Your task to perform on an android device: What's the weather going to be tomorrow? Image 0: 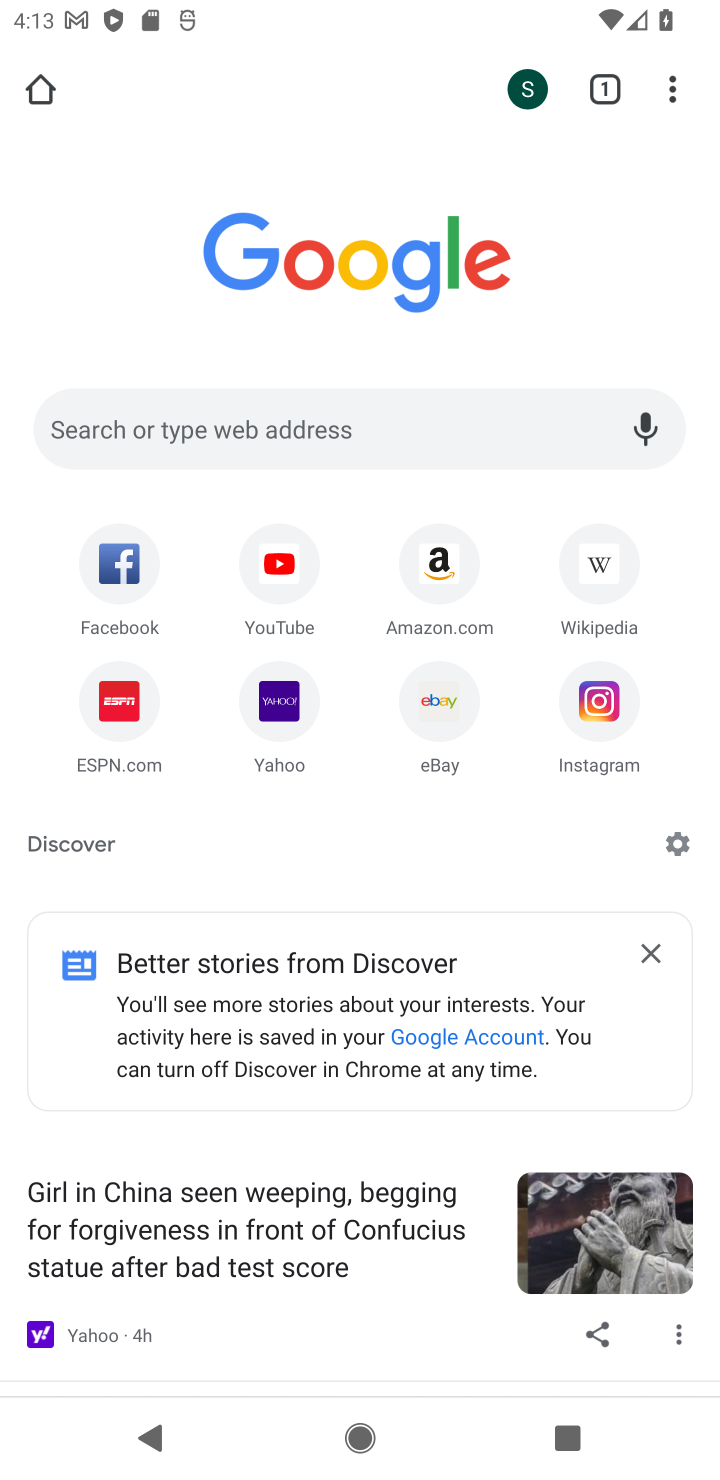
Step 0: press home button
Your task to perform on an android device: What's the weather going to be tomorrow? Image 1: 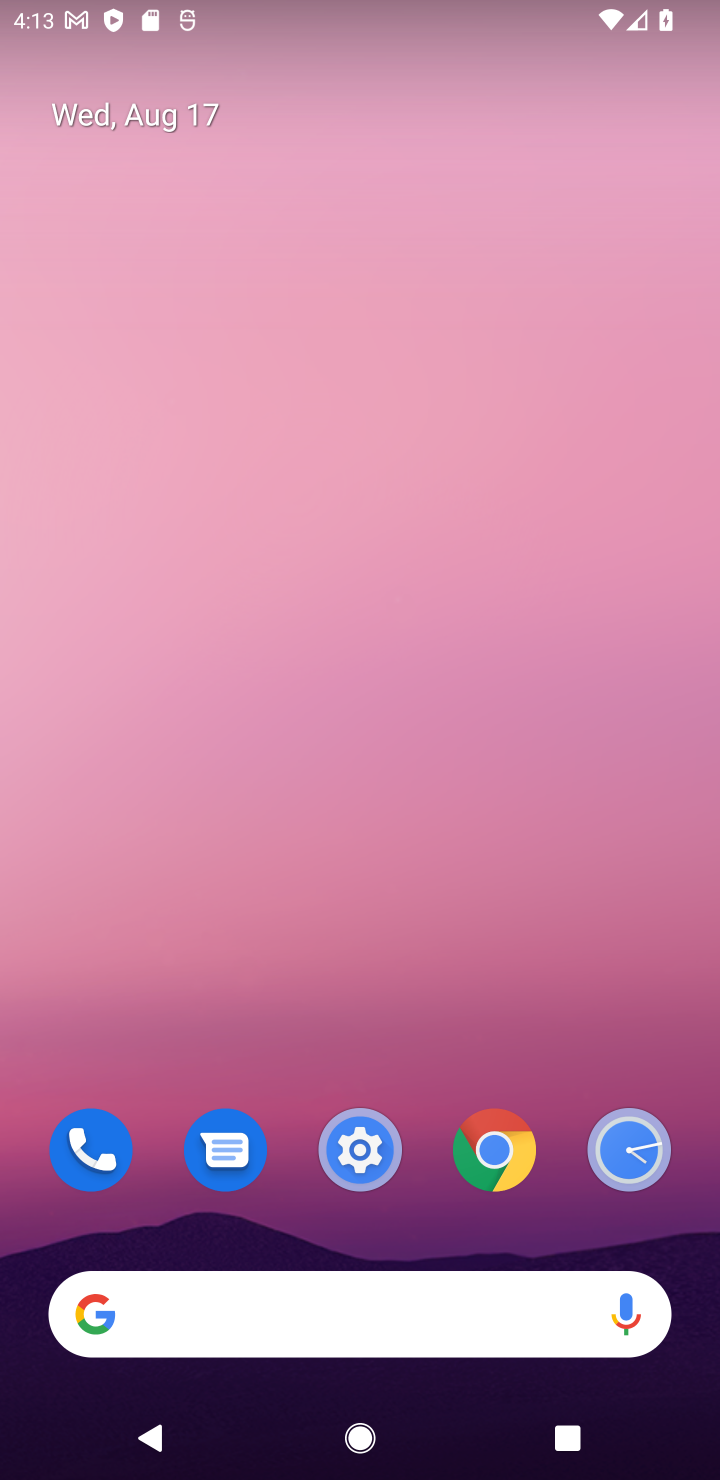
Step 1: drag from (686, 1250) to (218, 1)
Your task to perform on an android device: What's the weather going to be tomorrow? Image 2: 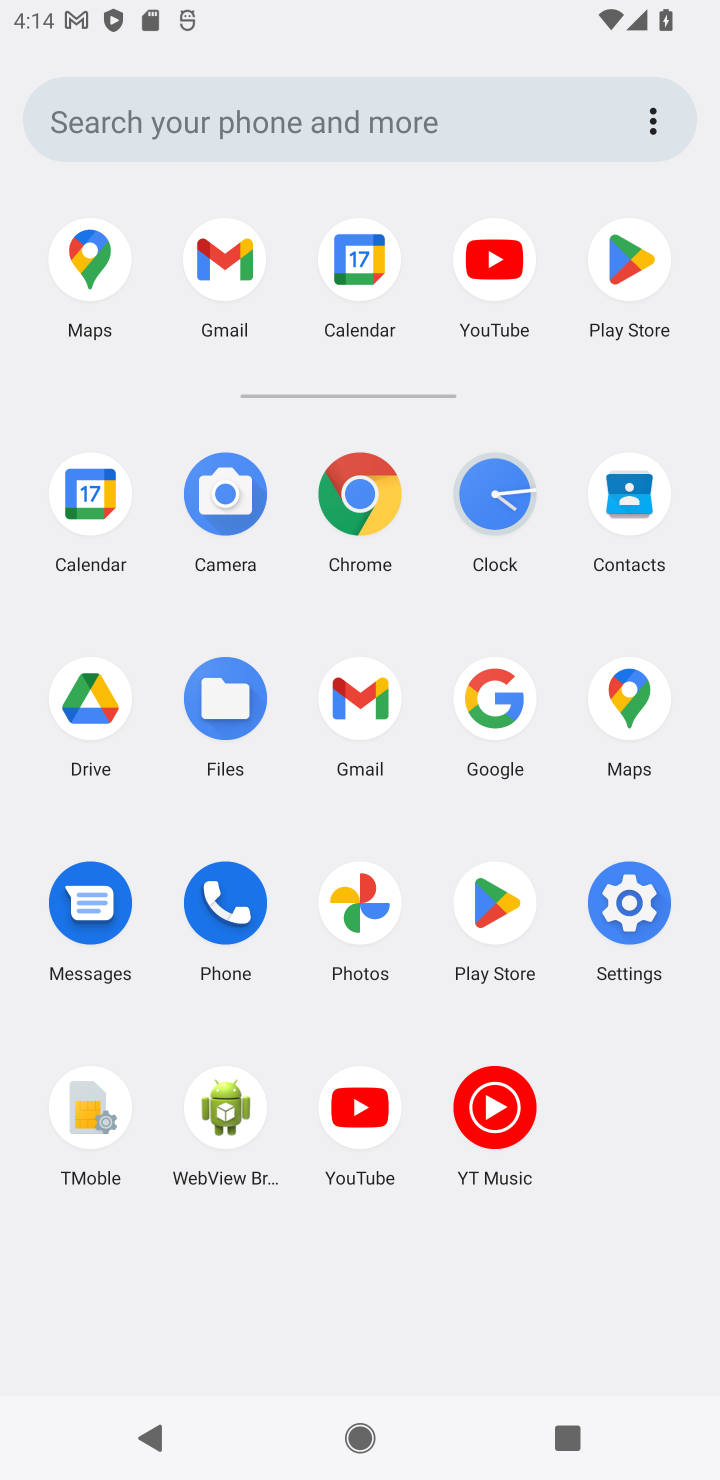
Step 2: click (482, 713)
Your task to perform on an android device: What's the weather going to be tomorrow? Image 3: 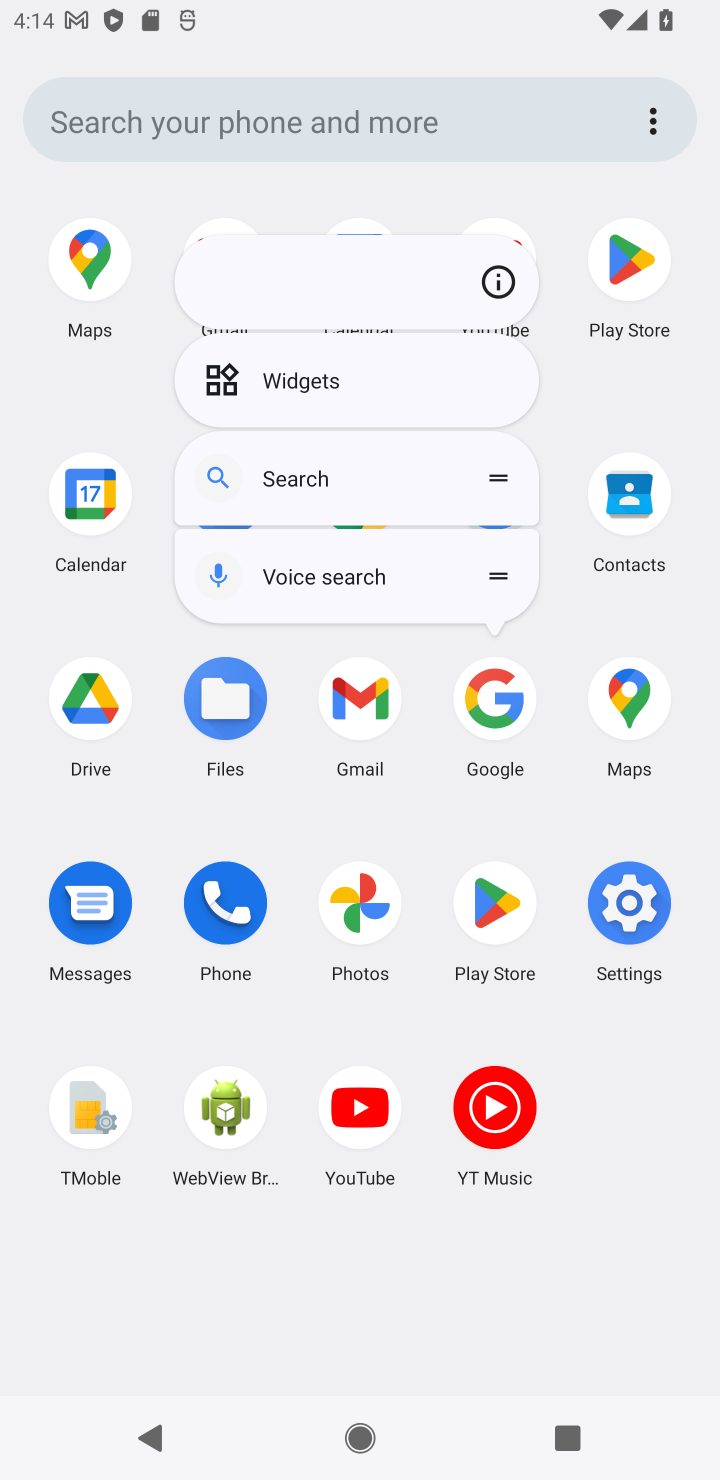
Step 3: click (482, 713)
Your task to perform on an android device: What's the weather going to be tomorrow? Image 4: 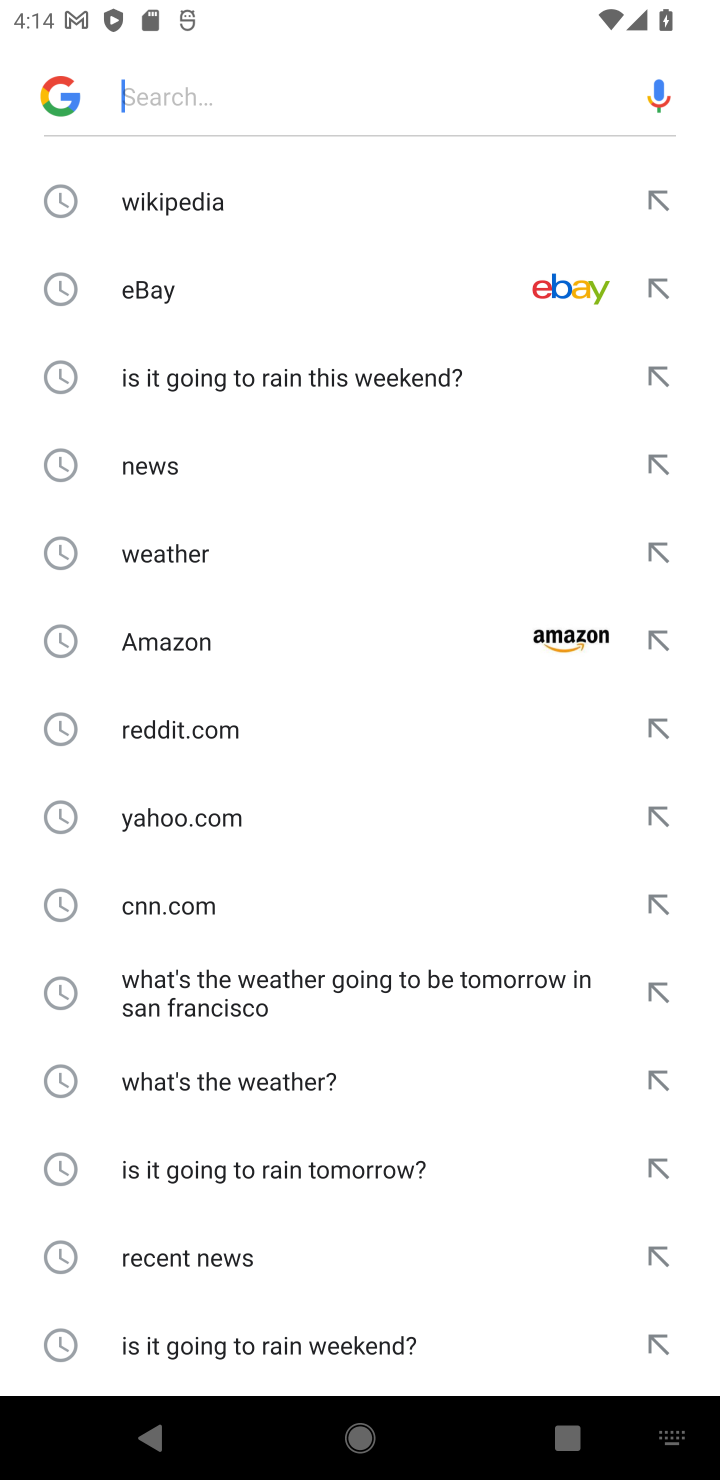
Step 4: drag from (367, 1249) to (352, 777)
Your task to perform on an android device: What's the weather going to be tomorrow? Image 5: 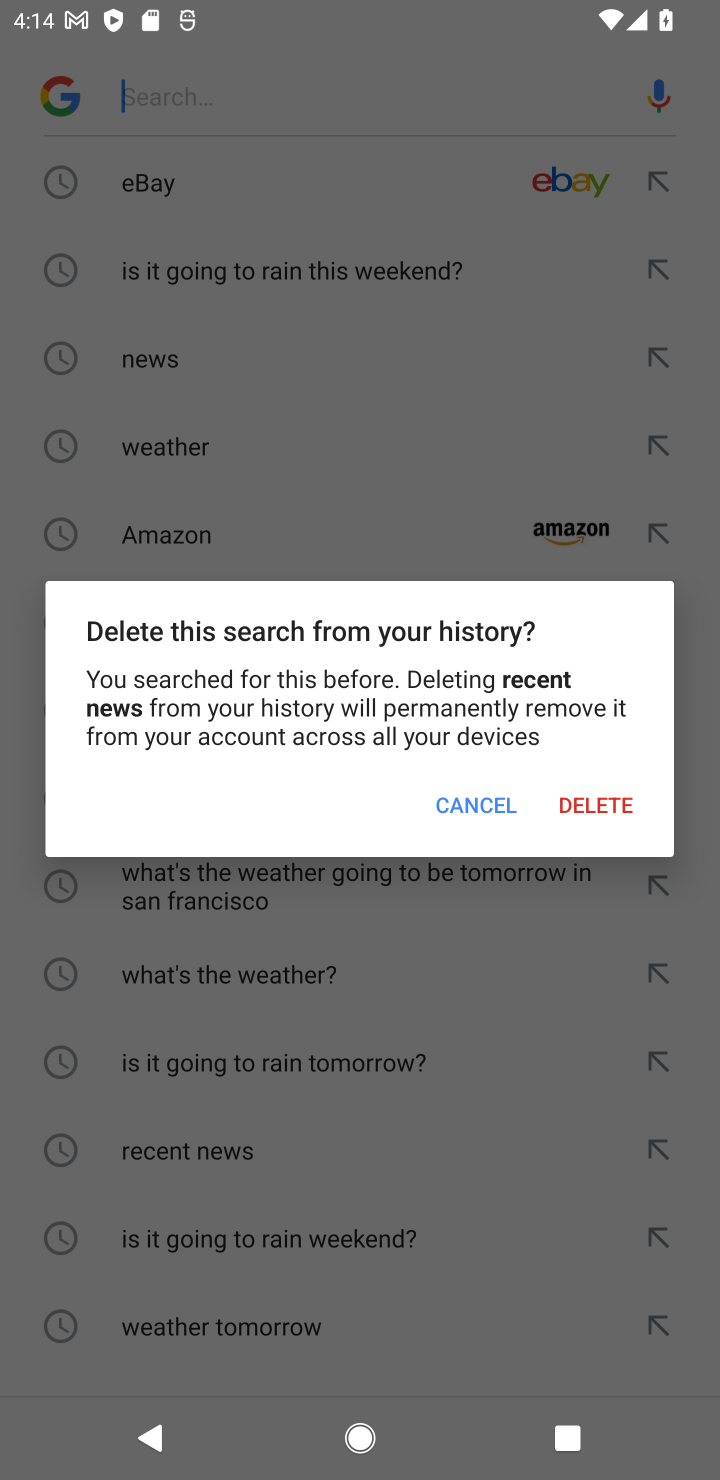
Step 5: click (483, 797)
Your task to perform on an android device: What's the weather going to be tomorrow? Image 6: 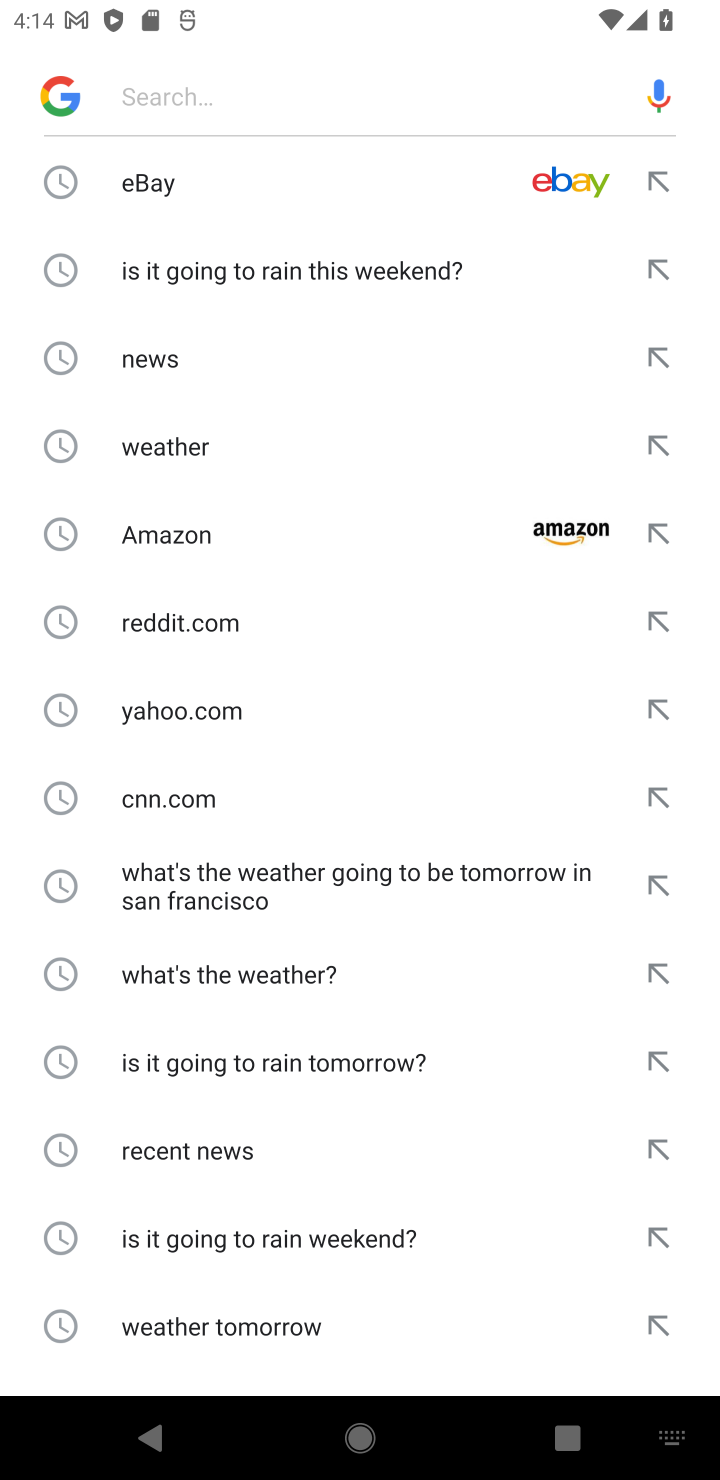
Step 6: drag from (90, 1256) to (139, 297)
Your task to perform on an android device: What's the weather going to be tomorrow? Image 7: 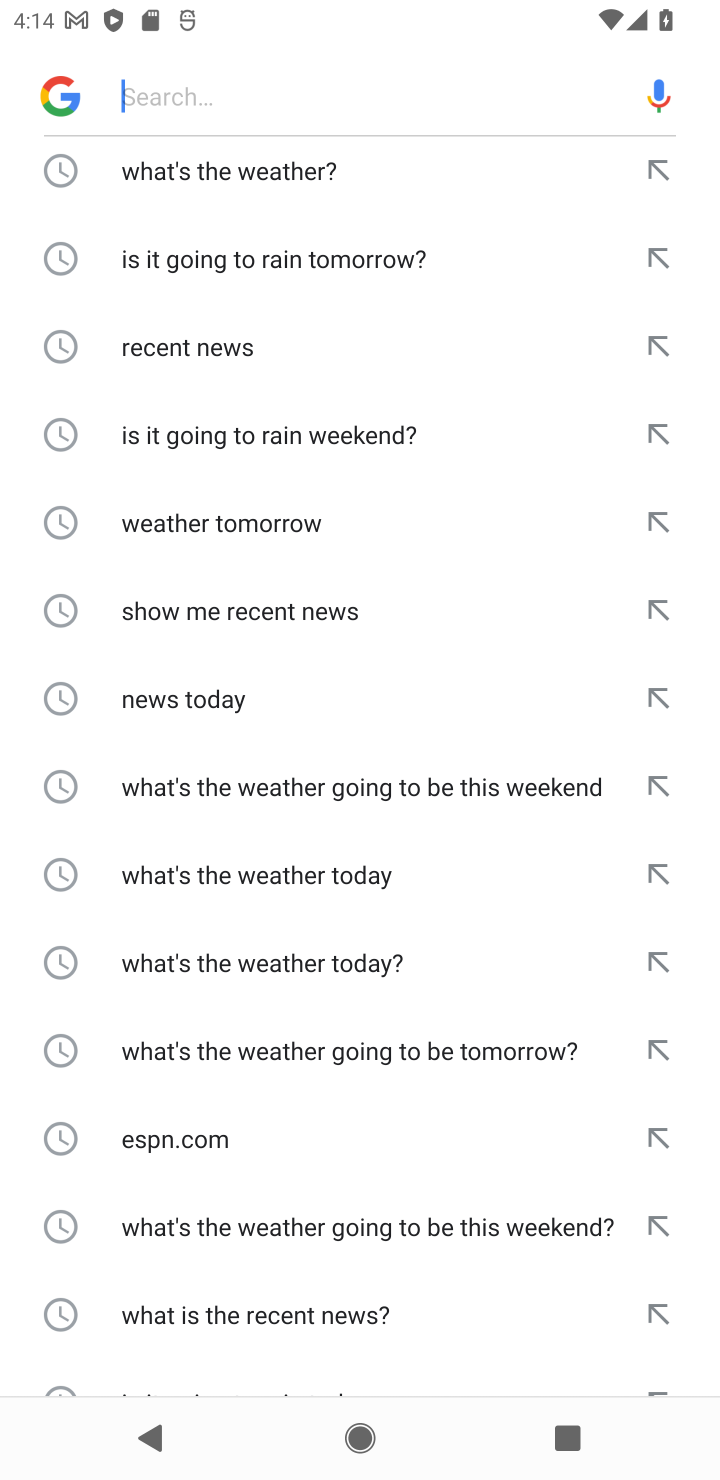
Step 7: drag from (277, 1216) to (336, 866)
Your task to perform on an android device: What's the weather going to be tomorrow? Image 8: 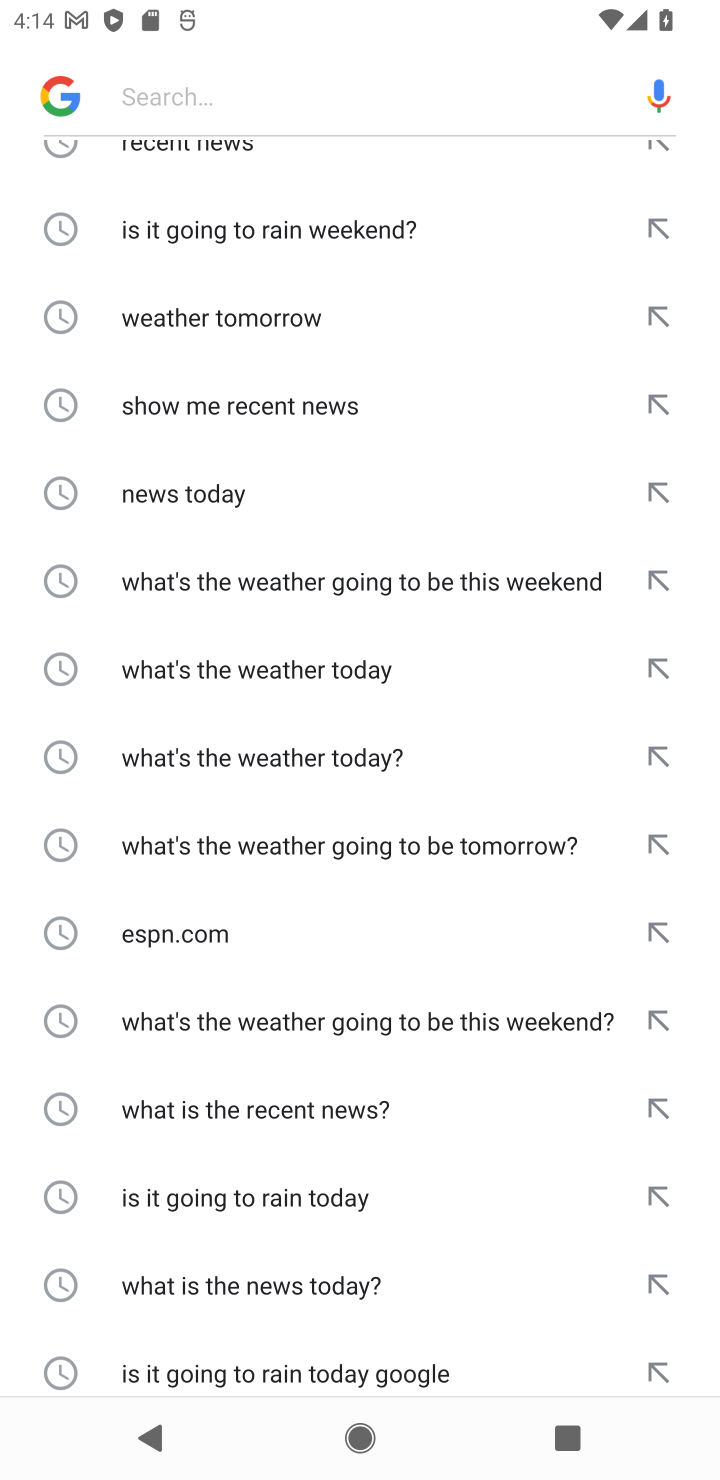
Step 8: click (275, 863)
Your task to perform on an android device: What's the weather going to be tomorrow? Image 9: 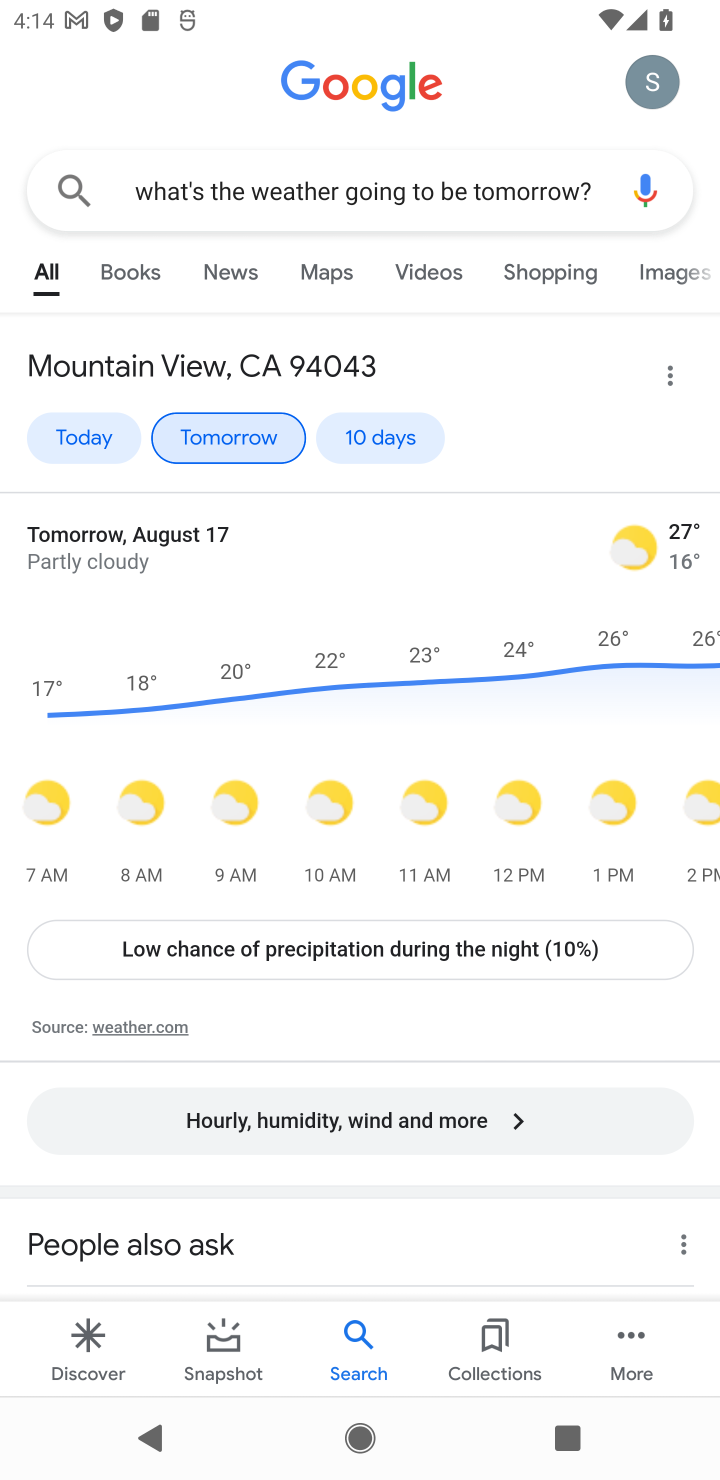
Step 9: task complete